Your task to perform on an android device: change keyboard looks Image 0: 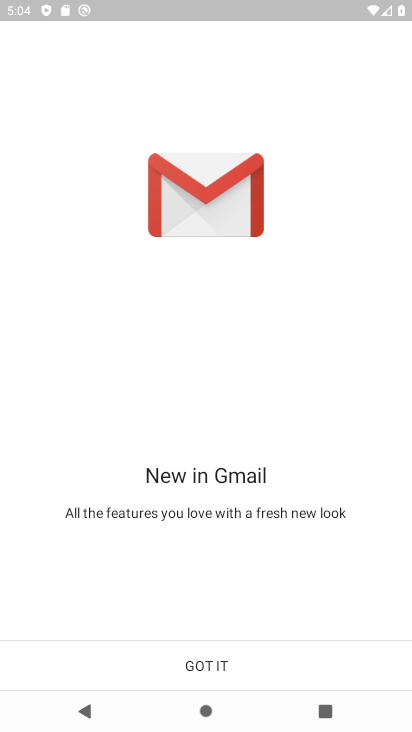
Step 0: press home button
Your task to perform on an android device: change keyboard looks Image 1: 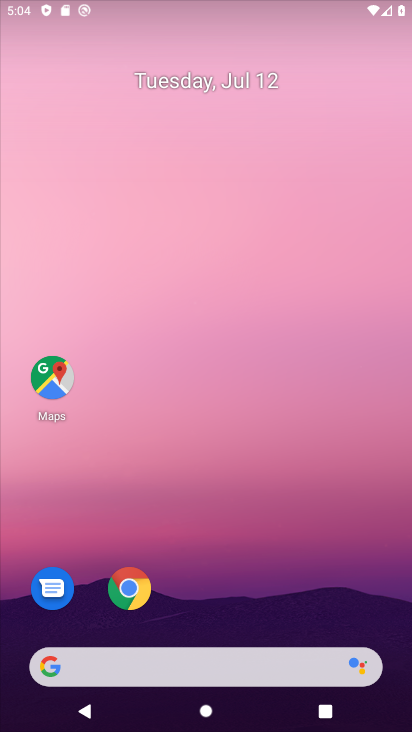
Step 1: drag from (316, 501) to (325, 101)
Your task to perform on an android device: change keyboard looks Image 2: 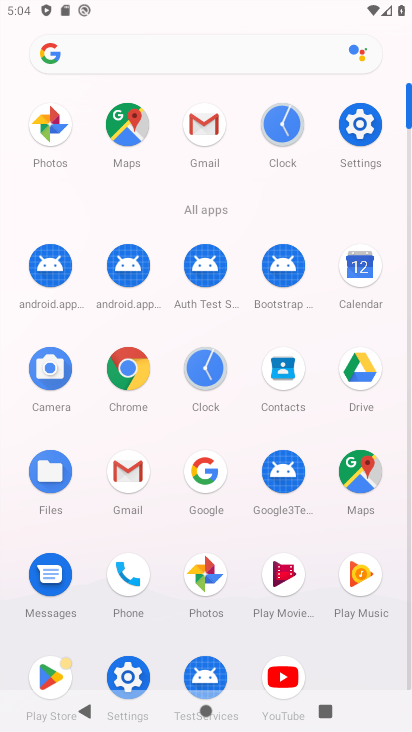
Step 2: click (358, 120)
Your task to perform on an android device: change keyboard looks Image 3: 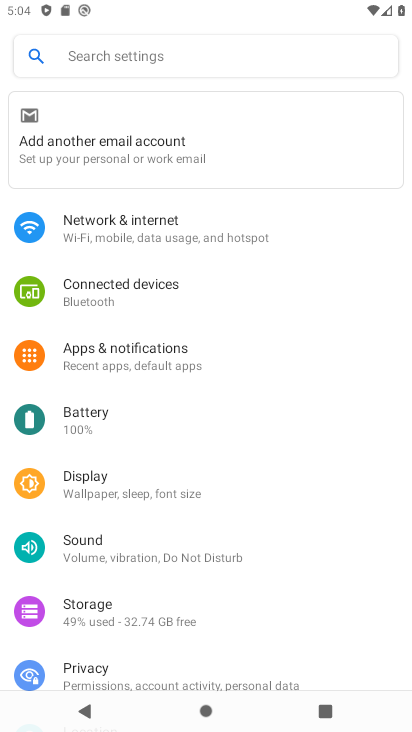
Step 3: drag from (172, 469) to (207, 188)
Your task to perform on an android device: change keyboard looks Image 4: 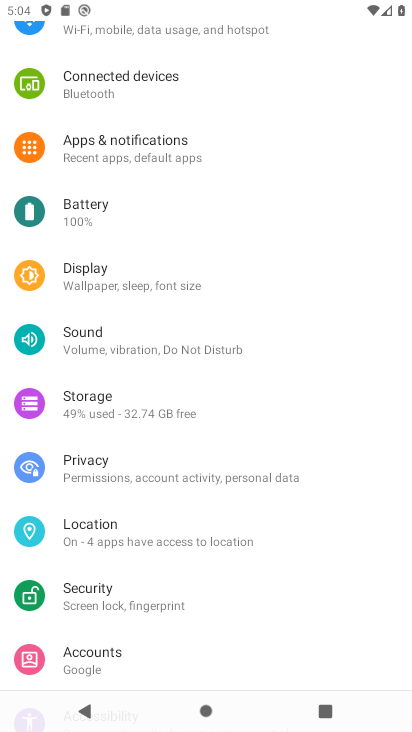
Step 4: drag from (220, 528) to (233, 167)
Your task to perform on an android device: change keyboard looks Image 5: 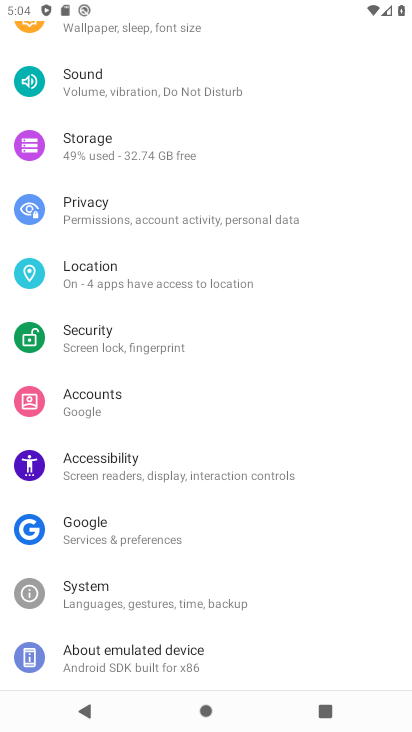
Step 5: drag from (200, 540) to (235, 221)
Your task to perform on an android device: change keyboard looks Image 6: 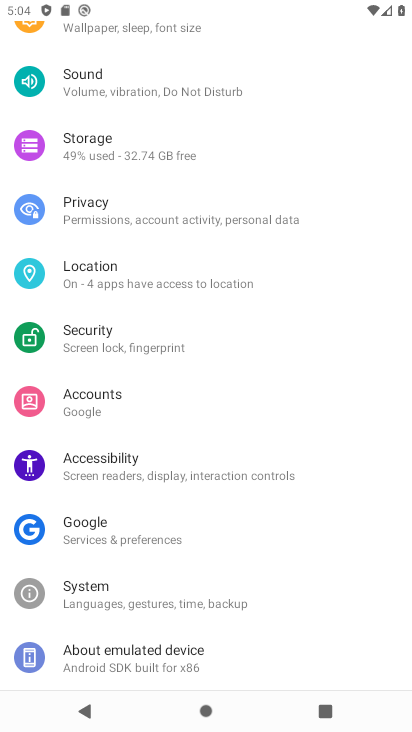
Step 6: click (153, 598)
Your task to perform on an android device: change keyboard looks Image 7: 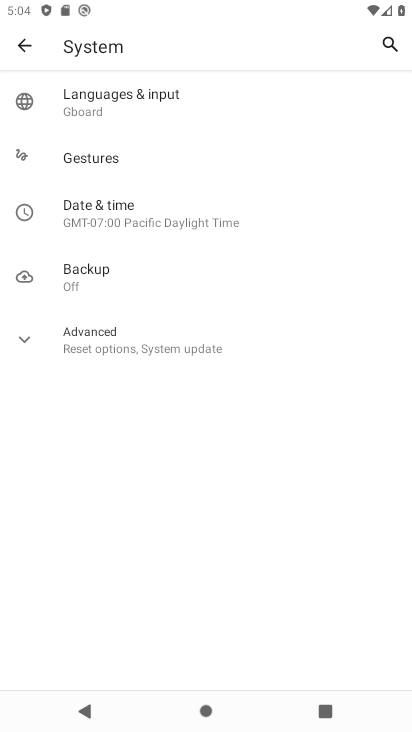
Step 7: click (97, 104)
Your task to perform on an android device: change keyboard looks Image 8: 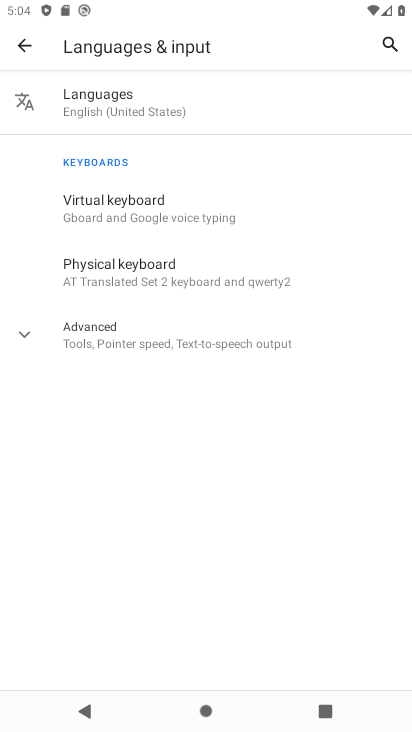
Step 8: click (98, 212)
Your task to perform on an android device: change keyboard looks Image 9: 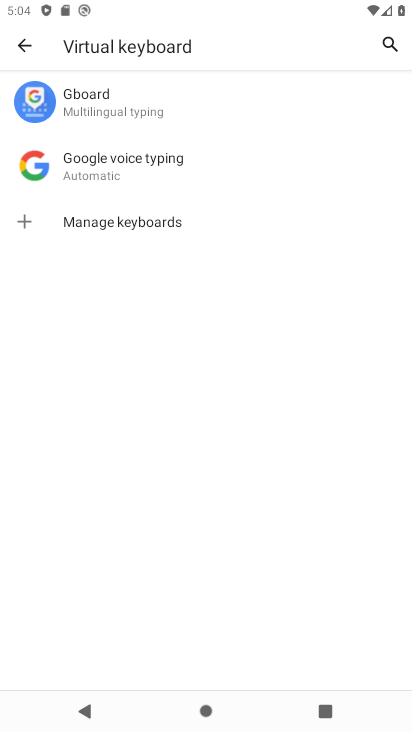
Step 9: click (94, 93)
Your task to perform on an android device: change keyboard looks Image 10: 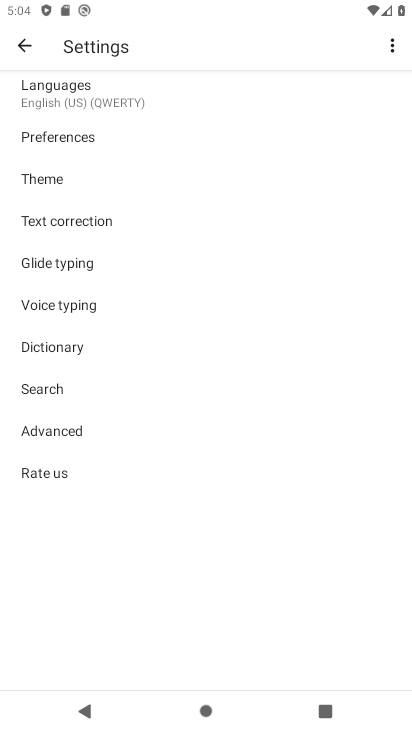
Step 10: click (58, 178)
Your task to perform on an android device: change keyboard looks Image 11: 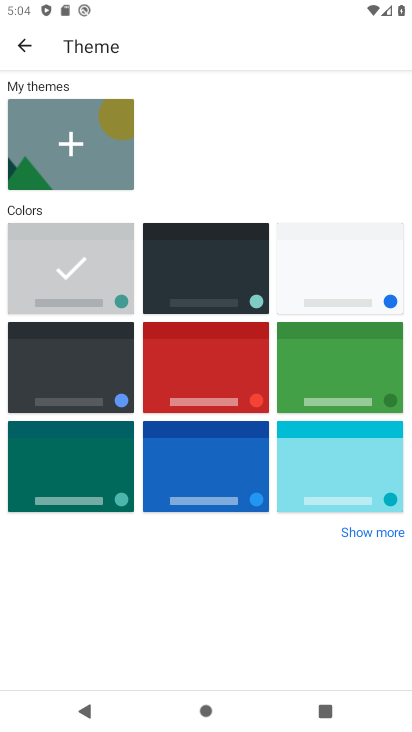
Step 11: click (186, 279)
Your task to perform on an android device: change keyboard looks Image 12: 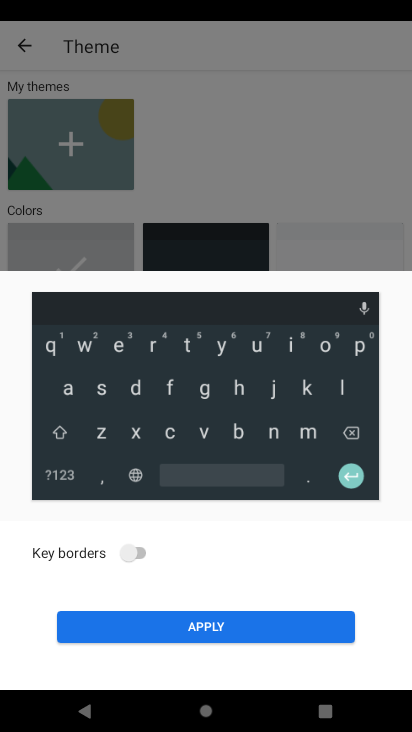
Step 12: click (203, 629)
Your task to perform on an android device: change keyboard looks Image 13: 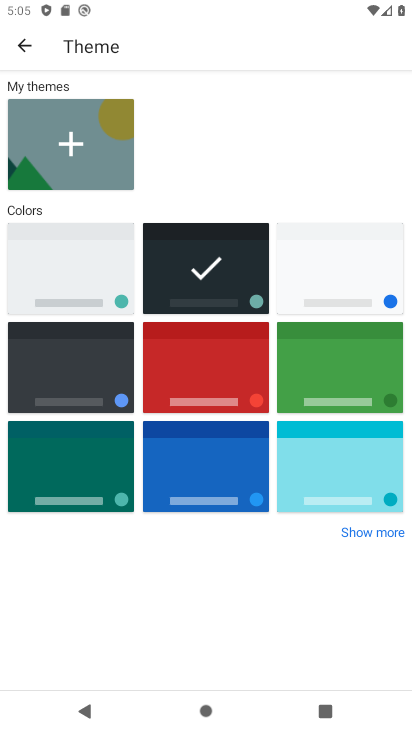
Step 13: task complete